Your task to perform on an android device: Show me the alarms in the clock app Image 0: 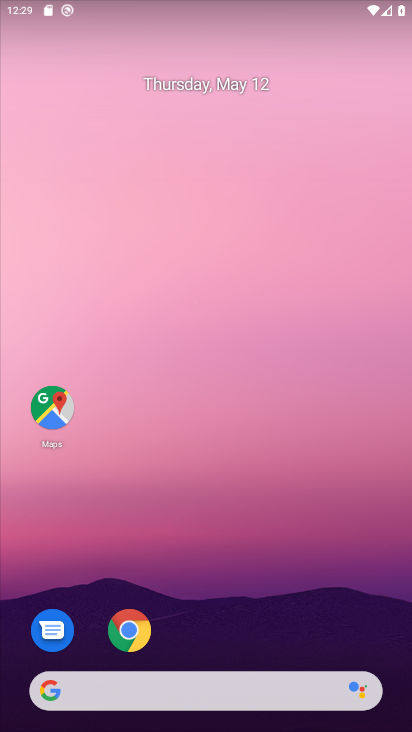
Step 0: drag from (264, 656) to (340, 76)
Your task to perform on an android device: Show me the alarms in the clock app Image 1: 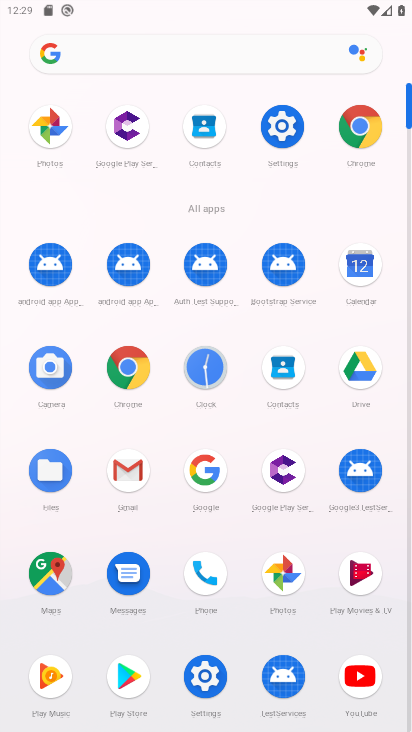
Step 1: click (197, 367)
Your task to perform on an android device: Show me the alarms in the clock app Image 2: 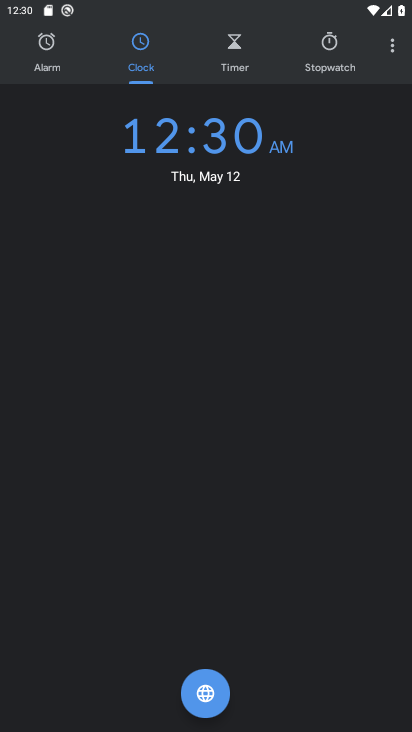
Step 2: click (54, 60)
Your task to perform on an android device: Show me the alarms in the clock app Image 3: 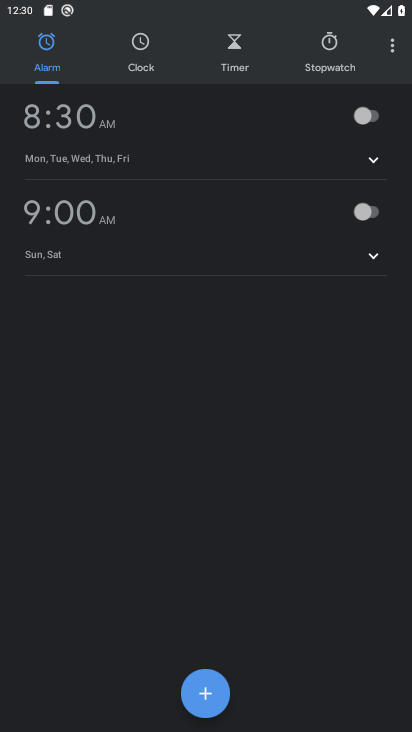
Step 3: task complete